Your task to perform on an android device: Go to Amazon Image 0: 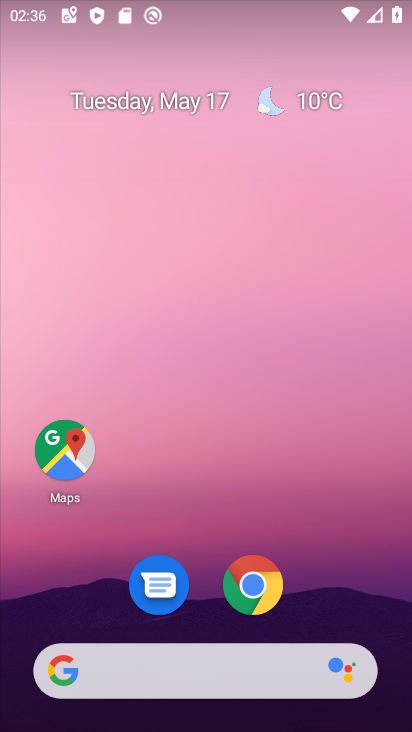
Step 0: click (243, 579)
Your task to perform on an android device: Go to Amazon Image 1: 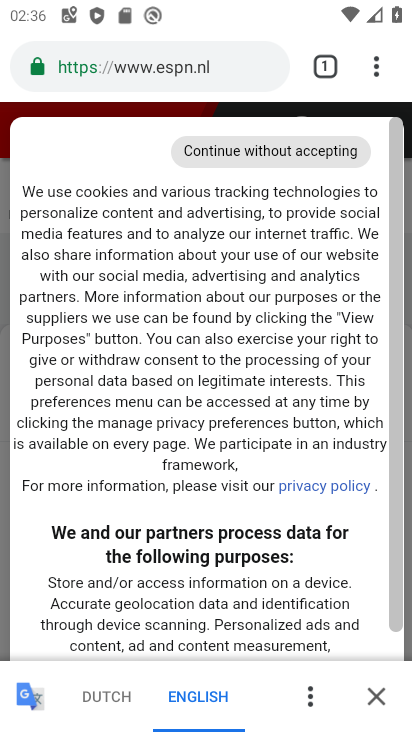
Step 1: click (373, 68)
Your task to perform on an android device: Go to Amazon Image 2: 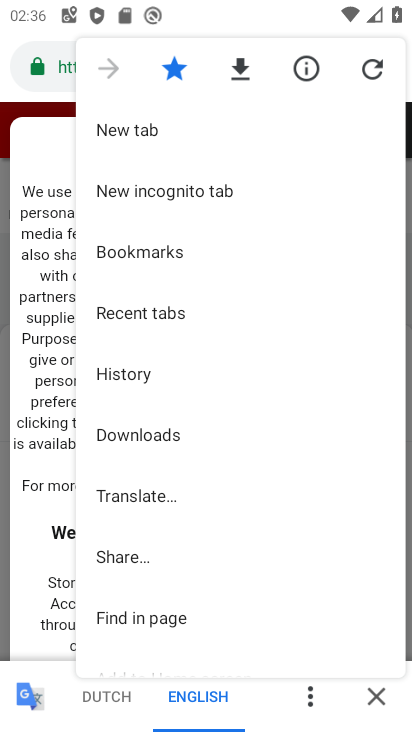
Step 2: click (301, 126)
Your task to perform on an android device: Go to Amazon Image 3: 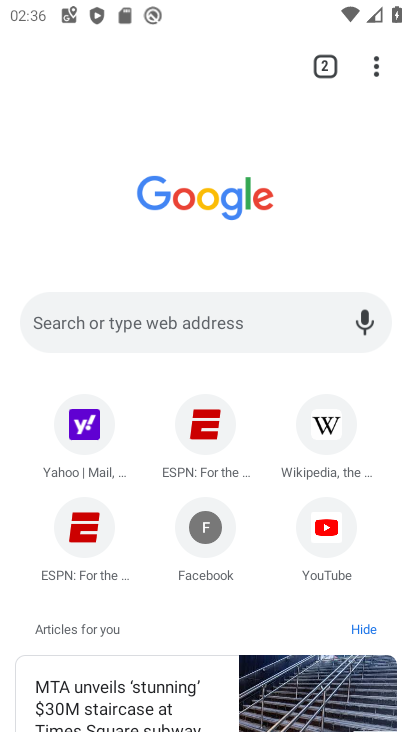
Step 3: click (238, 313)
Your task to perform on an android device: Go to Amazon Image 4: 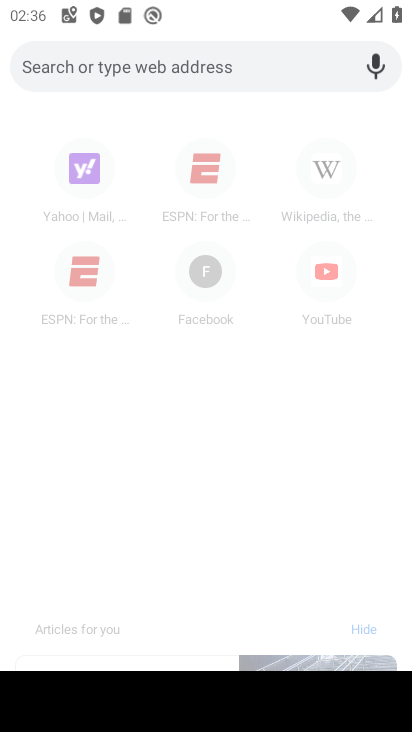
Step 4: type "amazon"
Your task to perform on an android device: Go to Amazon Image 5: 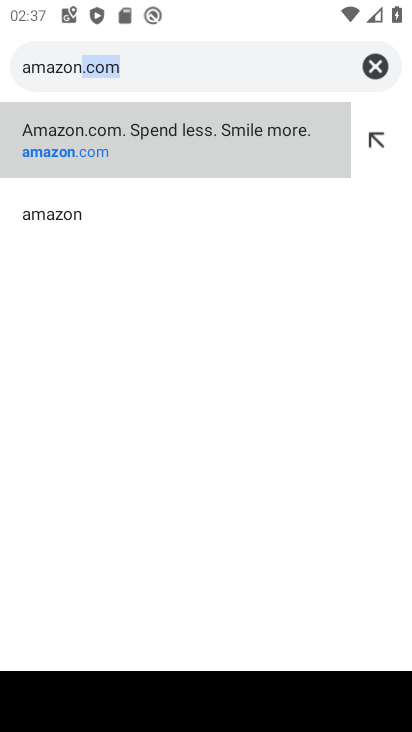
Step 5: click (65, 208)
Your task to perform on an android device: Go to Amazon Image 6: 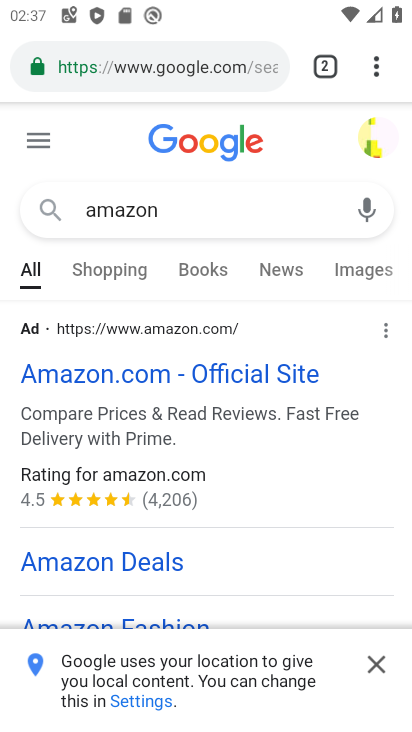
Step 6: click (96, 200)
Your task to perform on an android device: Go to Amazon Image 7: 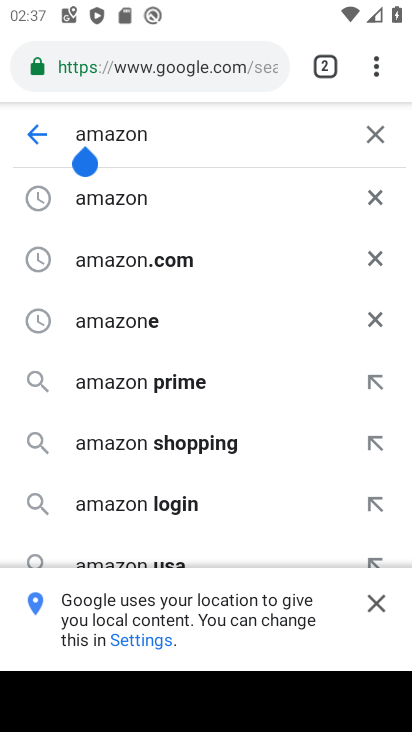
Step 7: click (96, 199)
Your task to perform on an android device: Go to Amazon Image 8: 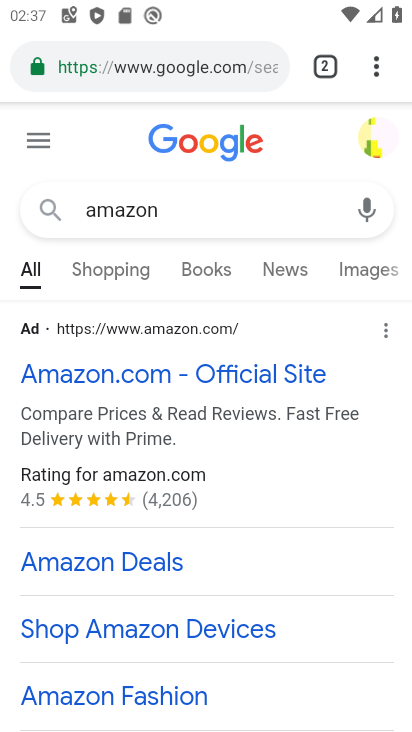
Step 8: click (79, 373)
Your task to perform on an android device: Go to Amazon Image 9: 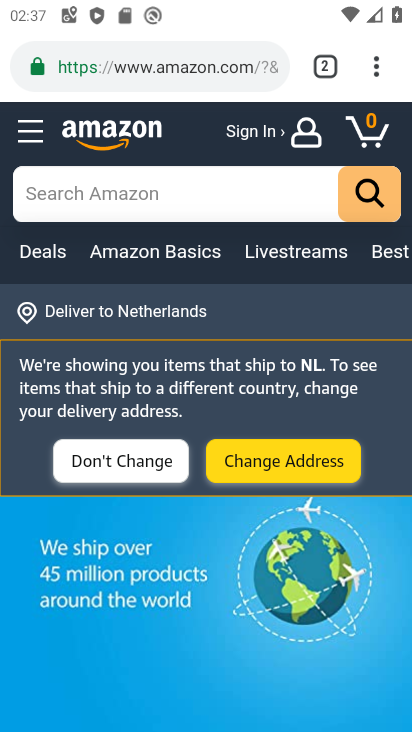
Step 9: task complete